Your task to perform on an android device: turn pop-ups off in chrome Image 0: 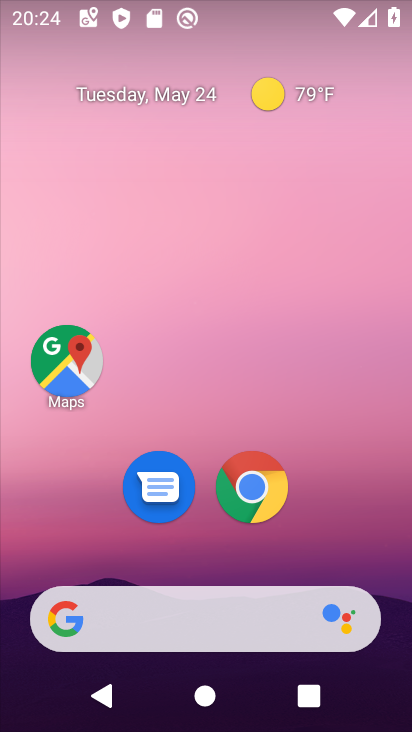
Step 0: click (244, 495)
Your task to perform on an android device: turn pop-ups off in chrome Image 1: 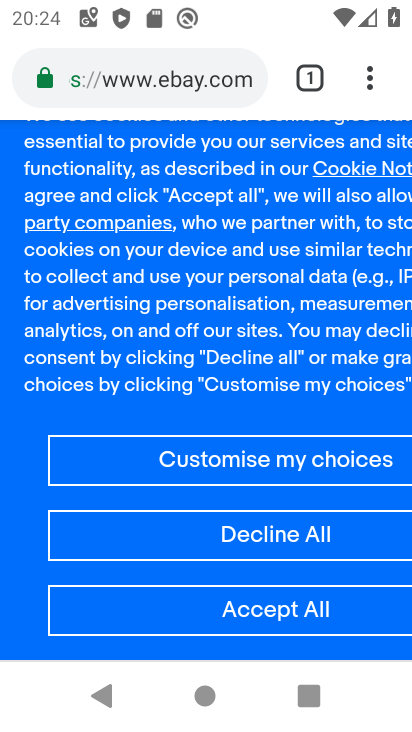
Step 1: click (371, 81)
Your task to perform on an android device: turn pop-ups off in chrome Image 2: 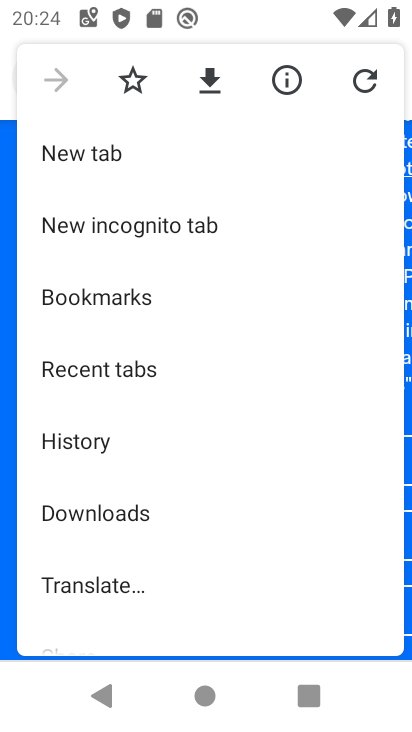
Step 2: drag from (103, 591) to (237, 150)
Your task to perform on an android device: turn pop-ups off in chrome Image 3: 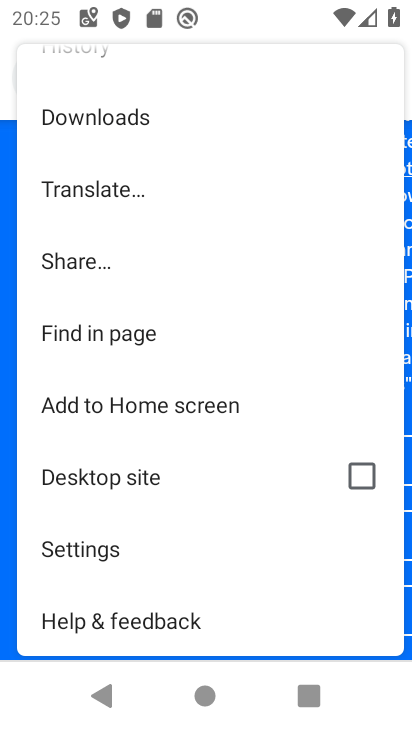
Step 3: click (86, 547)
Your task to perform on an android device: turn pop-ups off in chrome Image 4: 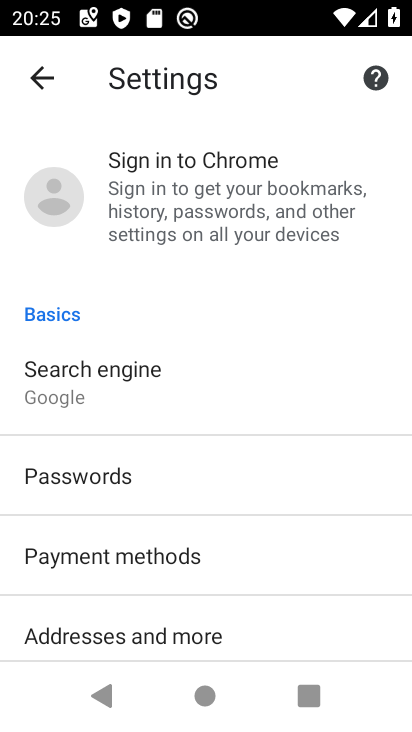
Step 4: drag from (0, 641) to (192, 222)
Your task to perform on an android device: turn pop-ups off in chrome Image 5: 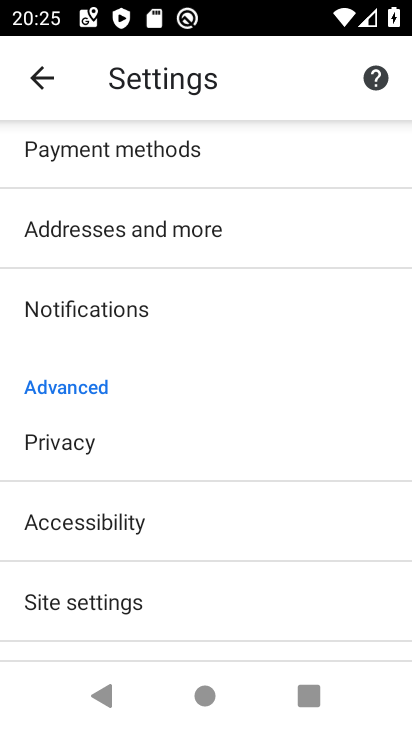
Step 5: click (153, 598)
Your task to perform on an android device: turn pop-ups off in chrome Image 6: 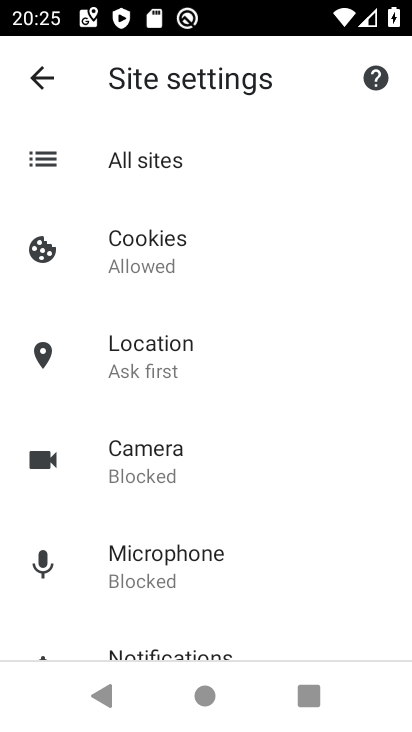
Step 6: drag from (9, 576) to (210, 202)
Your task to perform on an android device: turn pop-ups off in chrome Image 7: 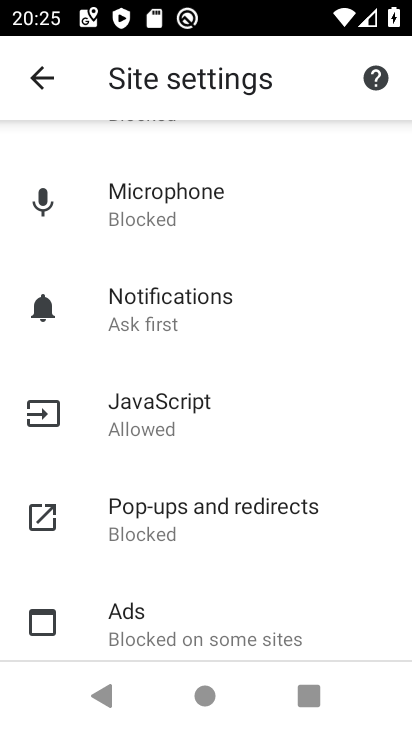
Step 7: drag from (32, 522) to (203, 210)
Your task to perform on an android device: turn pop-ups off in chrome Image 8: 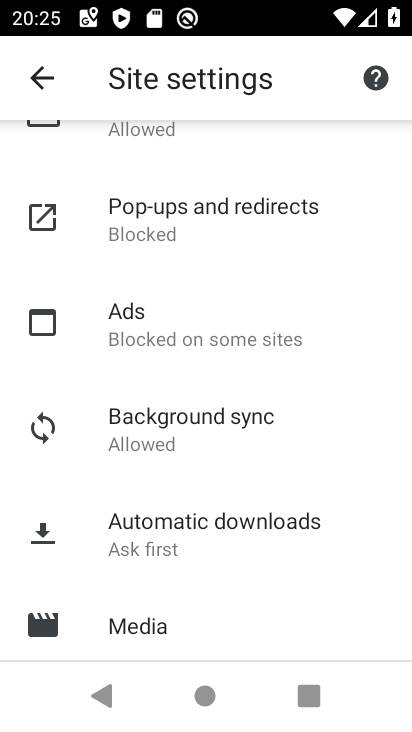
Step 8: click (111, 221)
Your task to perform on an android device: turn pop-ups off in chrome Image 9: 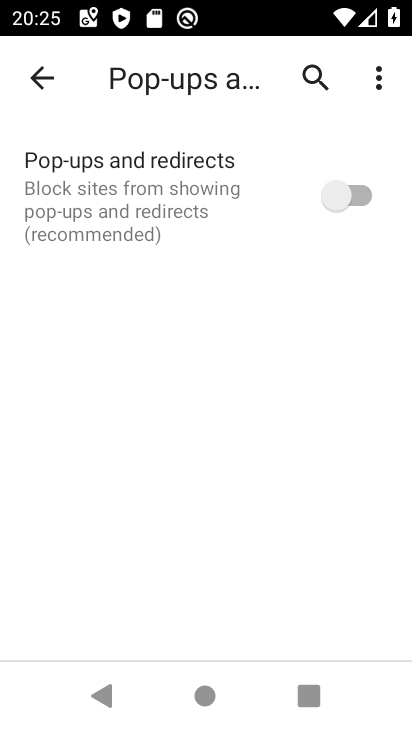
Step 9: task complete